Your task to perform on an android device: Open Google Chrome and click the shortcut for Amazon.com Image 0: 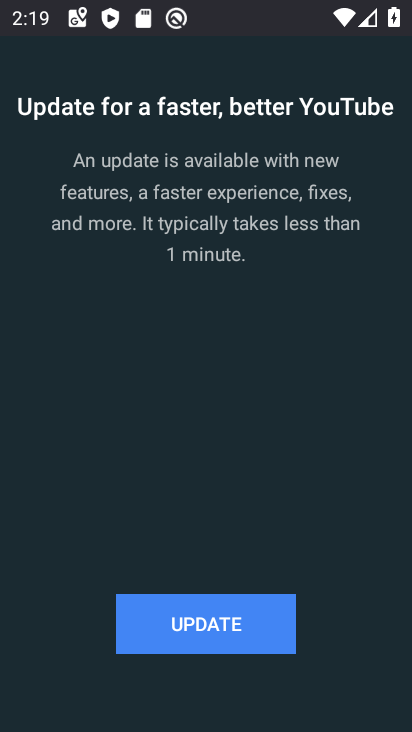
Step 0: press home button
Your task to perform on an android device: Open Google Chrome and click the shortcut for Amazon.com Image 1: 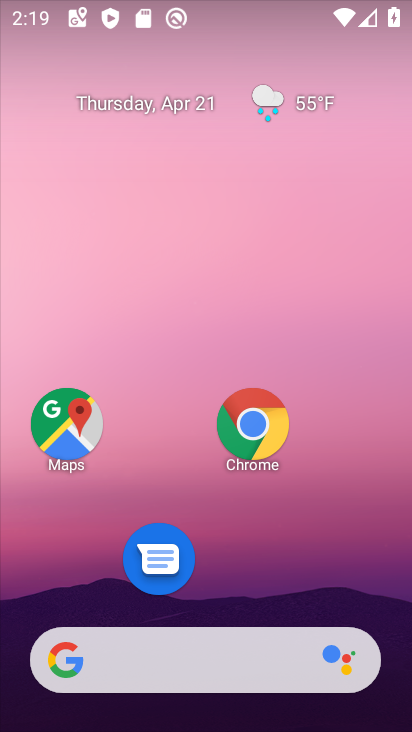
Step 1: click (253, 425)
Your task to perform on an android device: Open Google Chrome and click the shortcut for Amazon.com Image 2: 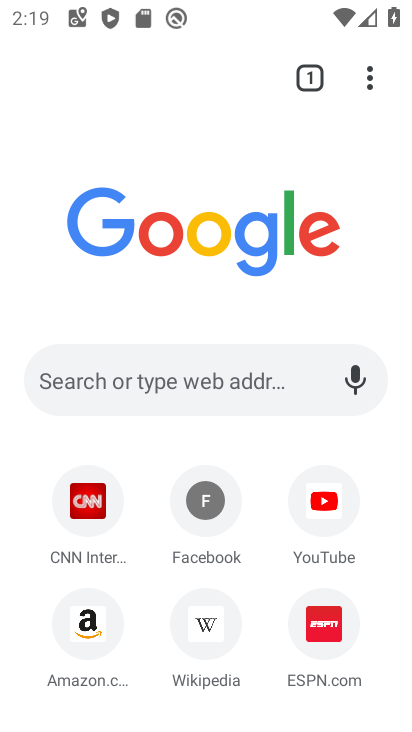
Step 2: click (84, 629)
Your task to perform on an android device: Open Google Chrome and click the shortcut for Amazon.com Image 3: 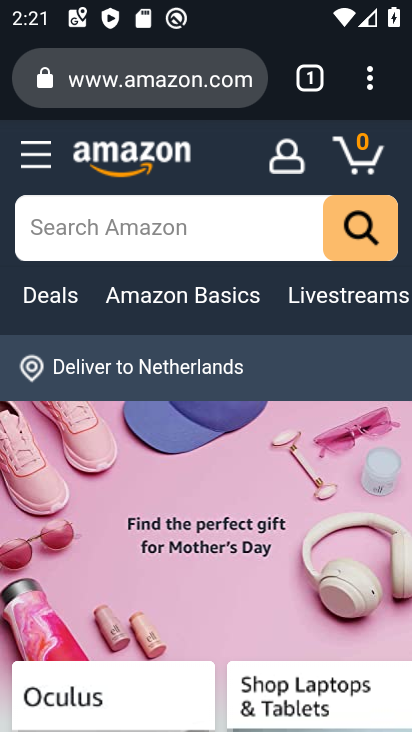
Step 3: task complete